Your task to perform on an android device: Open Google Maps Image 0: 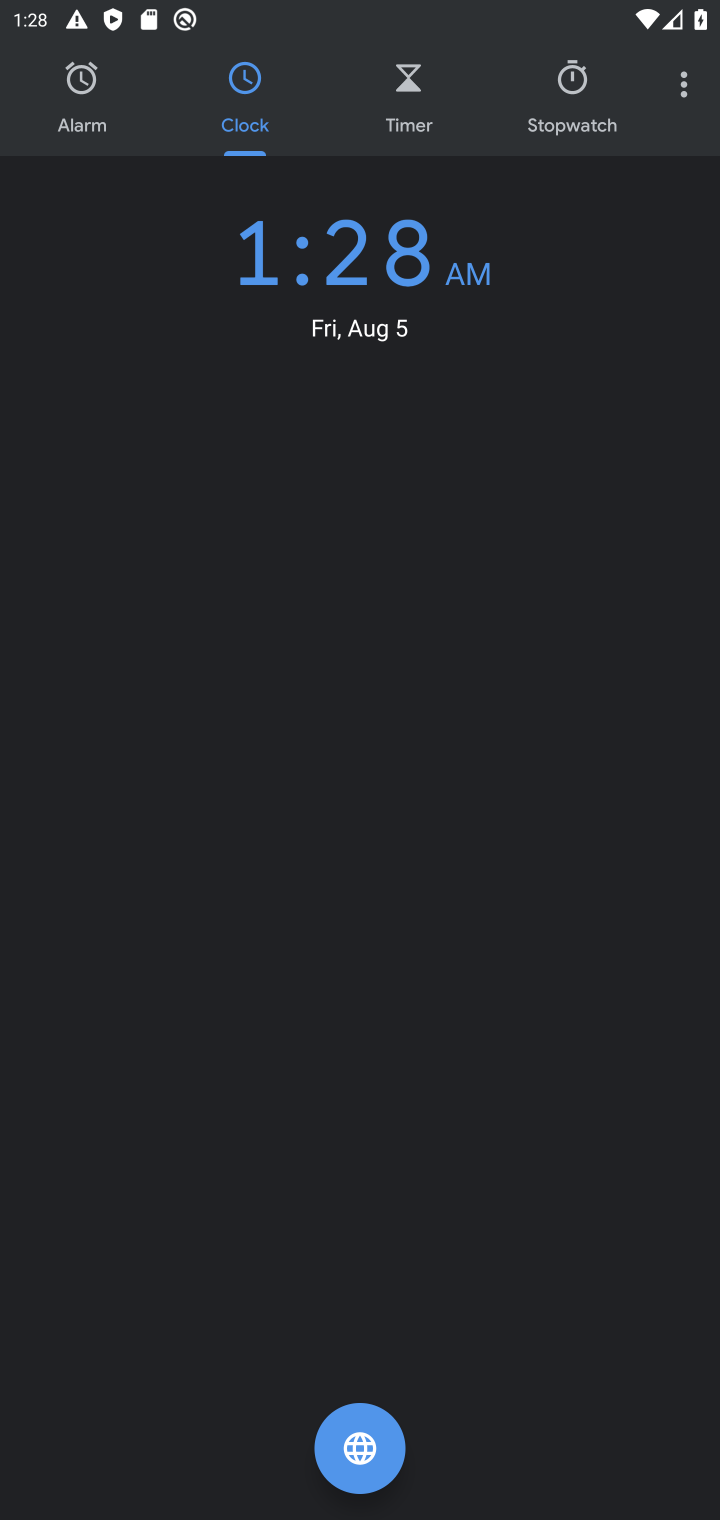
Step 0: press home button
Your task to perform on an android device: Open Google Maps Image 1: 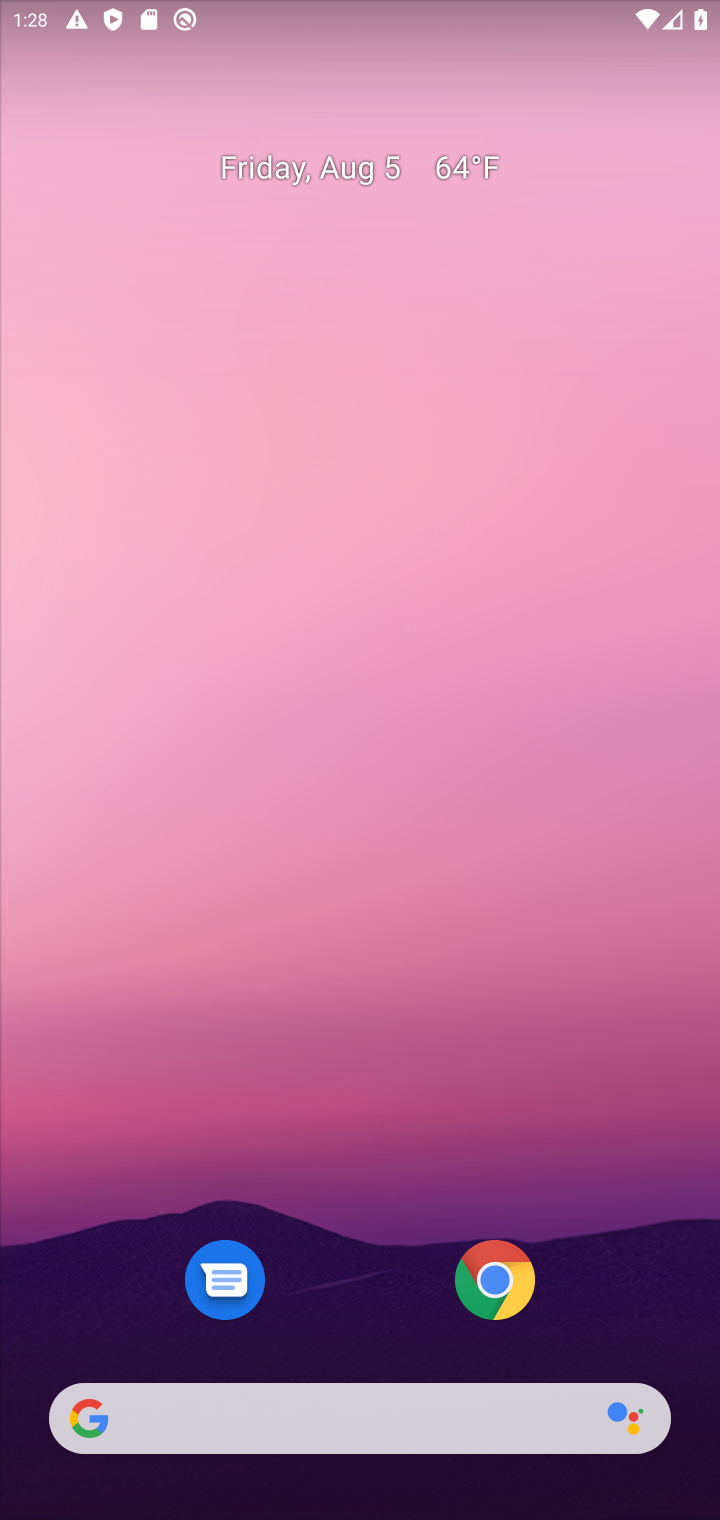
Step 1: drag from (277, 381) to (272, 14)
Your task to perform on an android device: Open Google Maps Image 2: 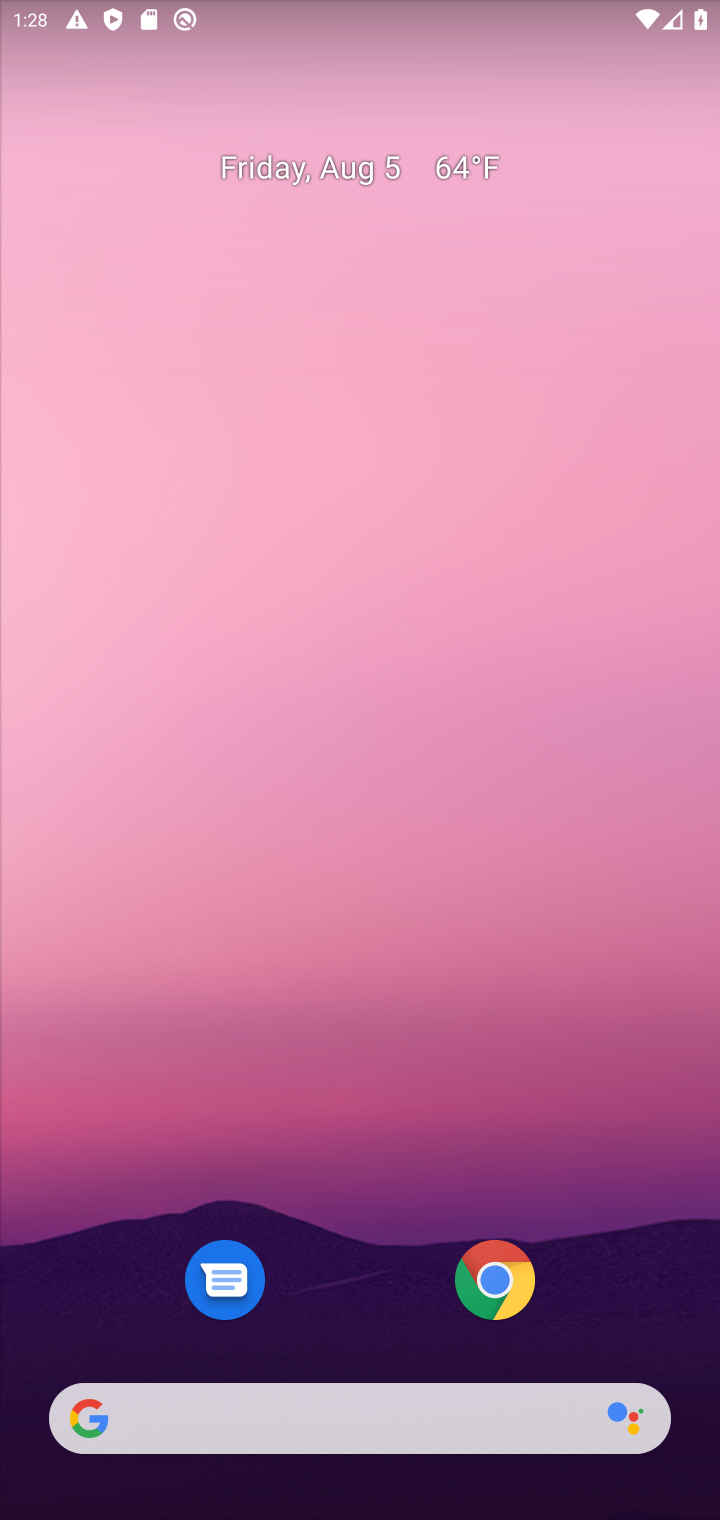
Step 2: drag from (329, 1306) to (347, 85)
Your task to perform on an android device: Open Google Maps Image 3: 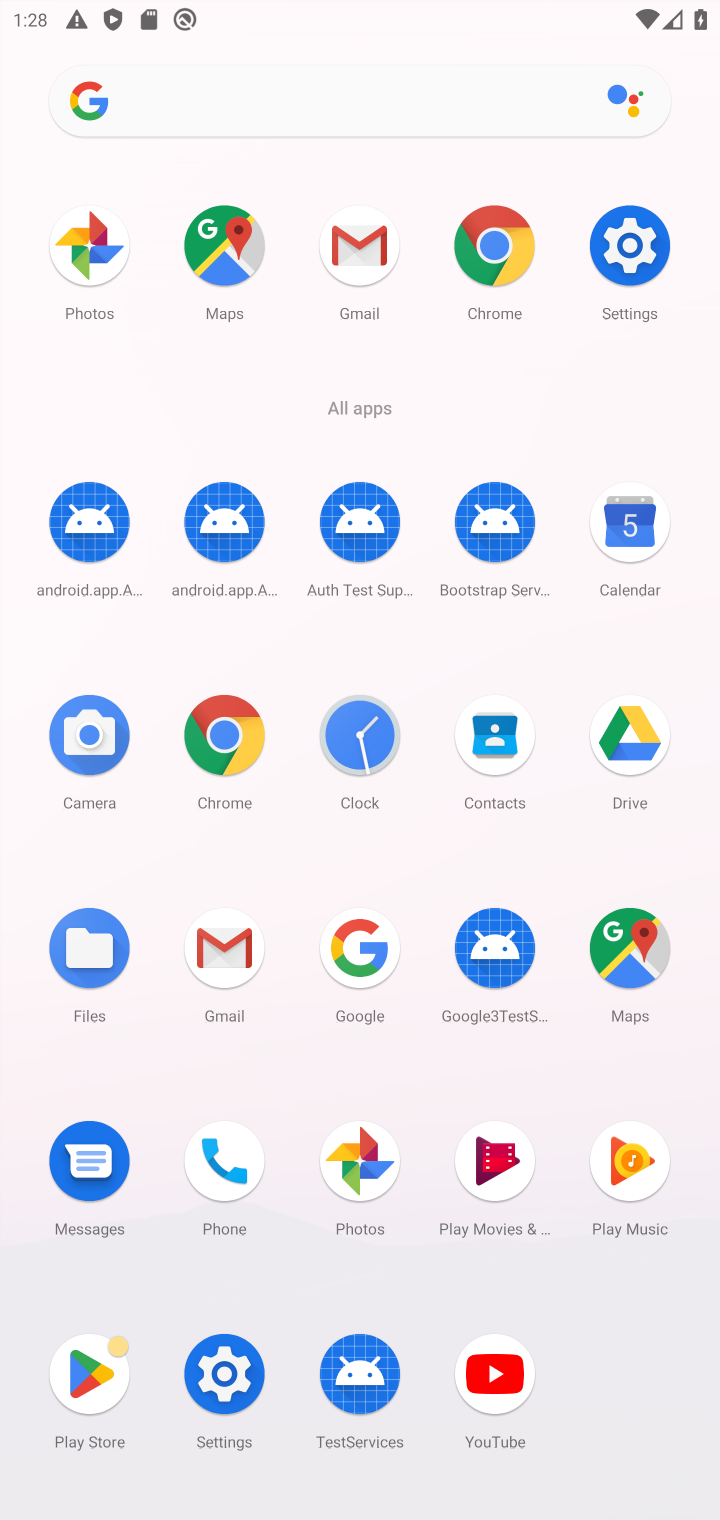
Step 3: click (613, 949)
Your task to perform on an android device: Open Google Maps Image 4: 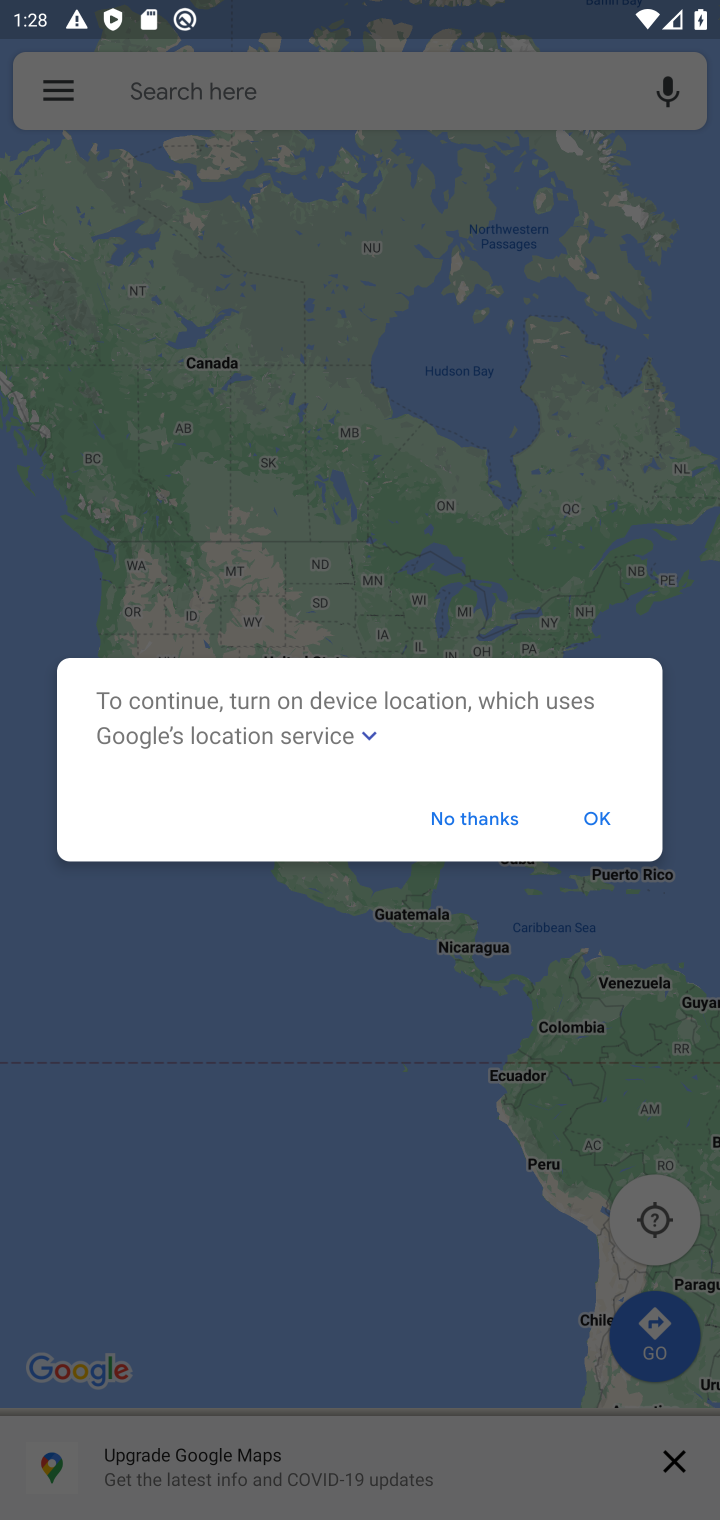
Step 4: click (585, 816)
Your task to perform on an android device: Open Google Maps Image 5: 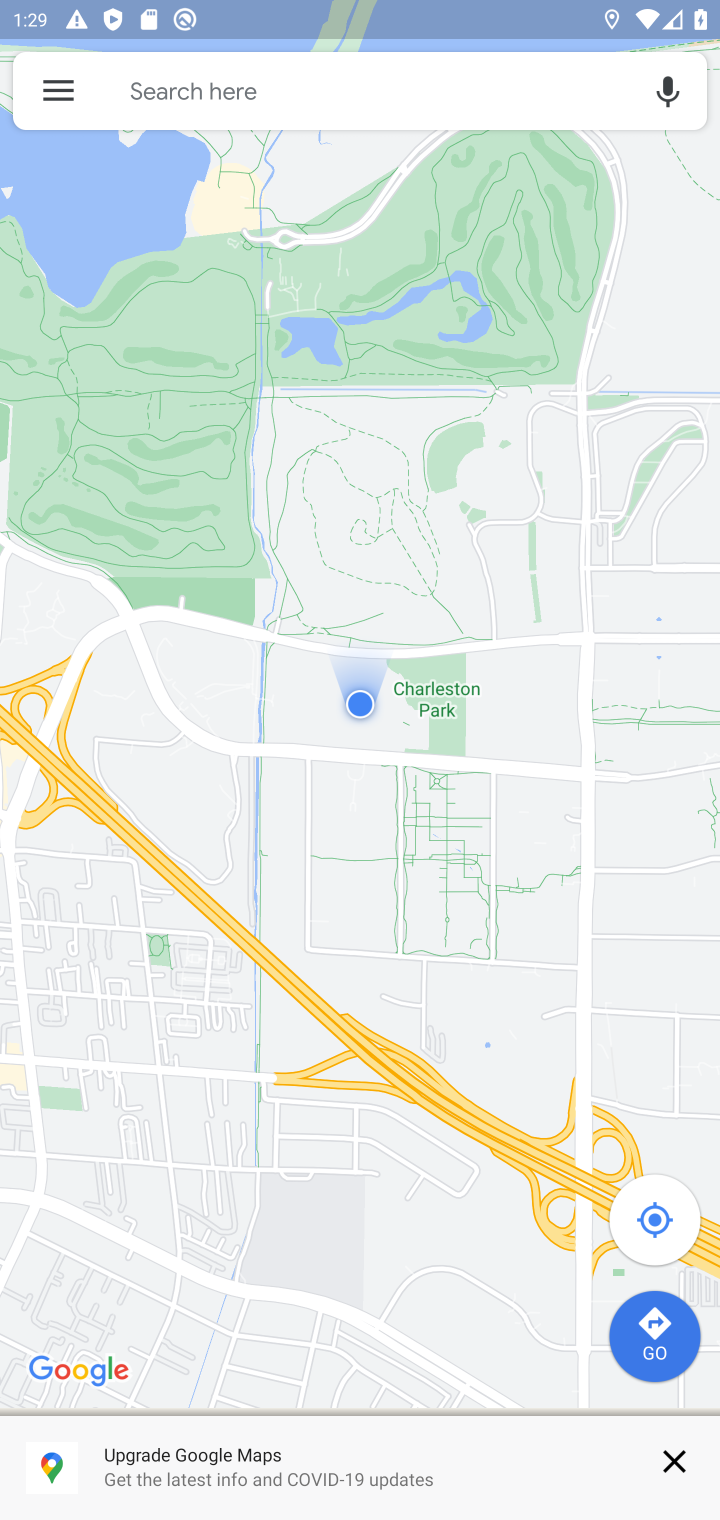
Step 5: task complete